Your task to perform on an android device: See recent photos Image 0: 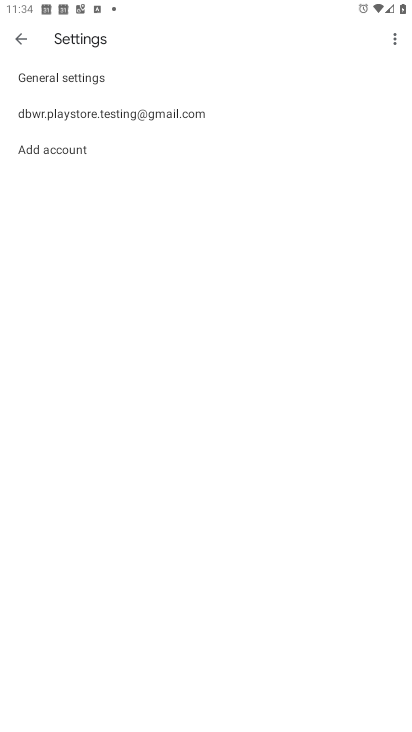
Step 0: press home button
Your task to perform on an android device: See recent photos Image 1: 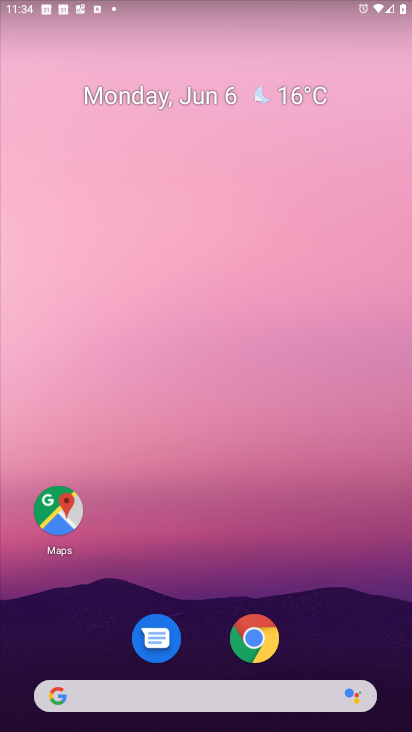
Step 1: drag from (214, 704) to (311, 24)
Your task to perform on an android device: See recent photos Image 2: 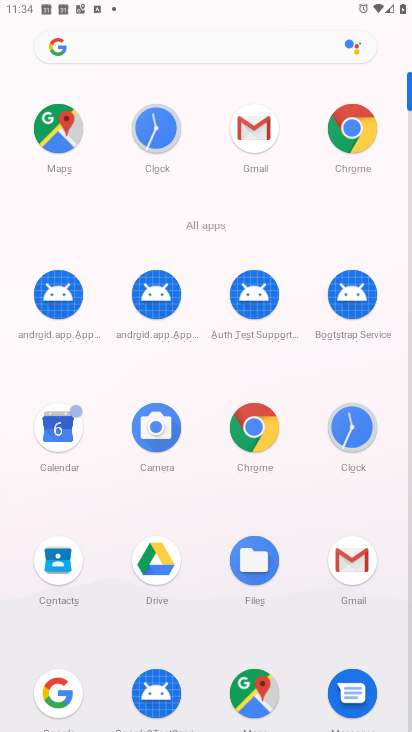
Step 2: drag from (213, 604) to (228, 391)
Your task to perform on an android device: See recent photos Image 3: 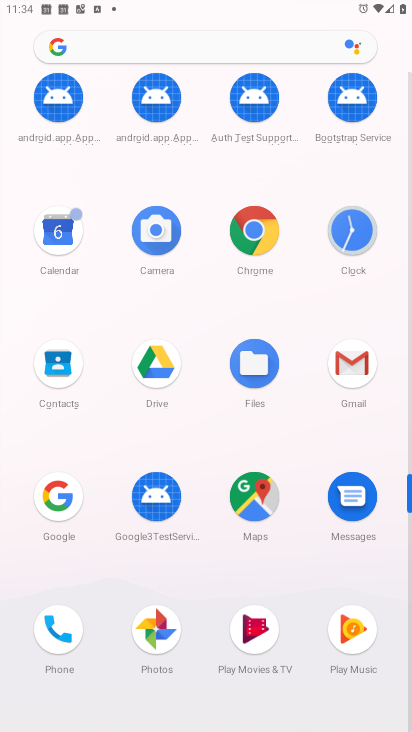
Step 3: click (165, 626)
Your task to perform on an android device: See recent photos Image 4: 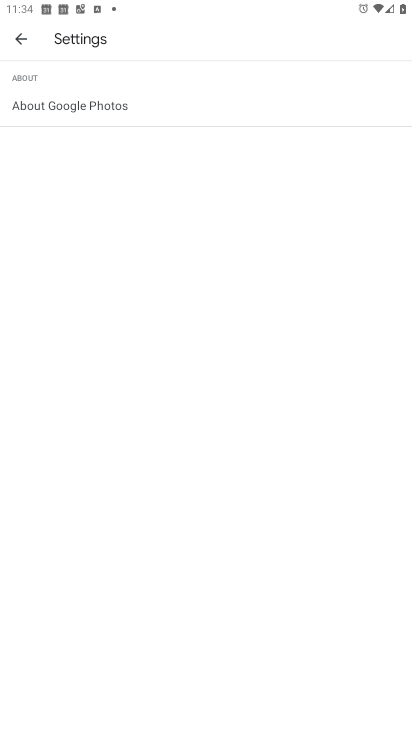
Step 4: click (23, 48)
Your task to perform on an android device: See recent photos Image 5: 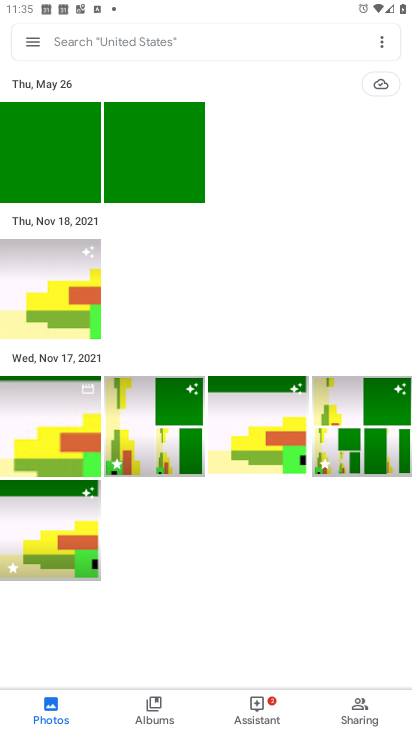
Step 5: task complete